Your task to perform on an android device: toggle wifi Image 0: 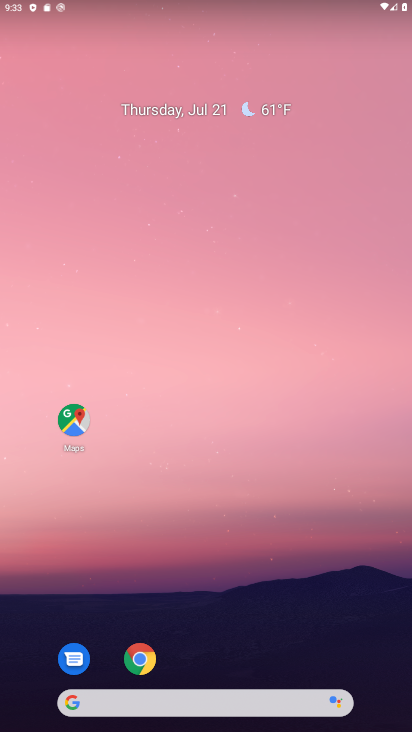
Step 0: drag from (62, 493) to (123, 121)
Your task to perform on an android device: toggle wifi Image 1: 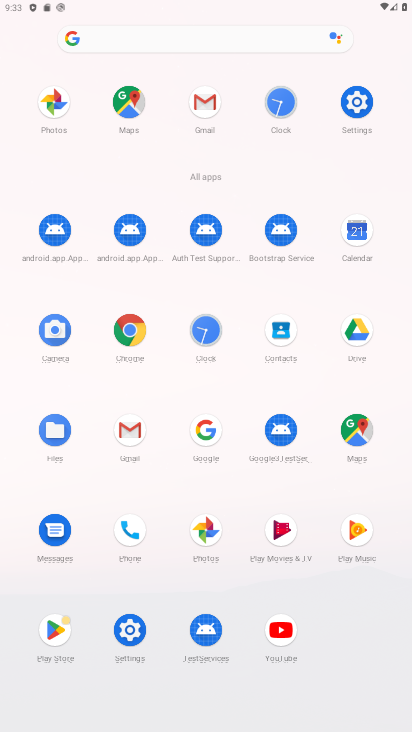
Step 1: click (148, 632)
Your task to perform on an android device: toggle wifi Image 2: 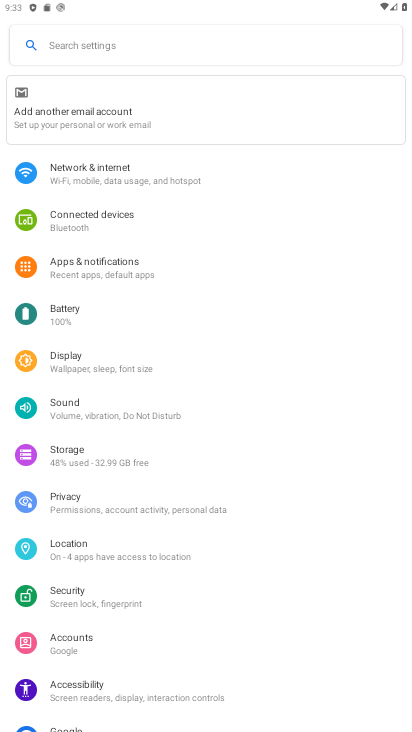
Step 2: click (118, 180)
Your task to perform on an android device: toggle wifi Image 3: 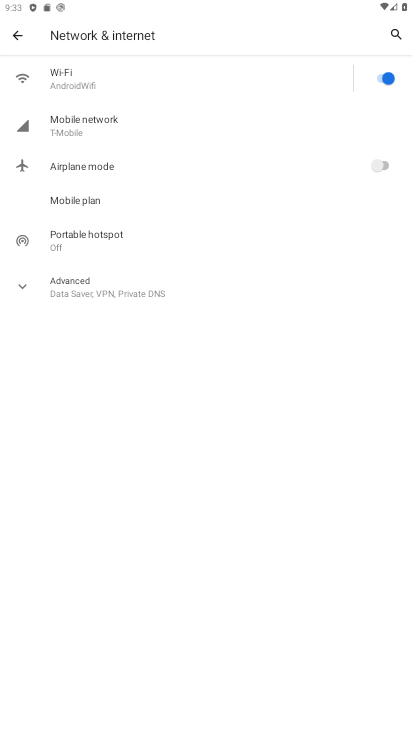
Step 3: task complete